Your task to perform on an android device: turn on notifications settings in the gmail app Image 0: 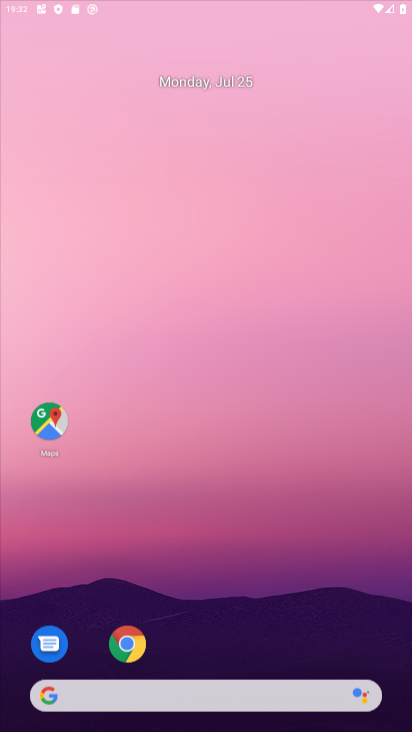
Step 0: press home button
Your task to perform on an android device: turn on notifications settings in the gmail app Image 1: 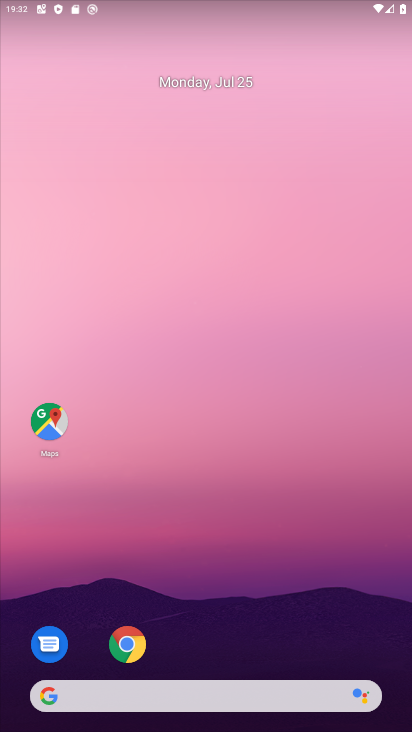
Step 1: drag from (206, 663) to (262, 28)
Your task to perform on an android device: turn on notifications settings in the gmail app Image 2: 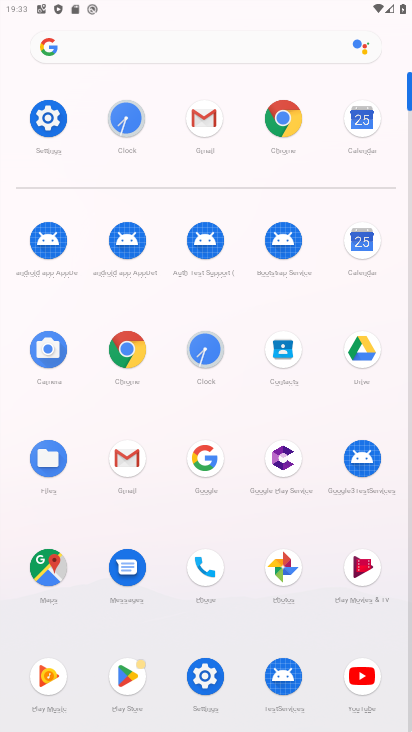
Step 2: click (208, 112)
Your task to perform on an android device: turn on notifications settings in the gmail app Image 3: 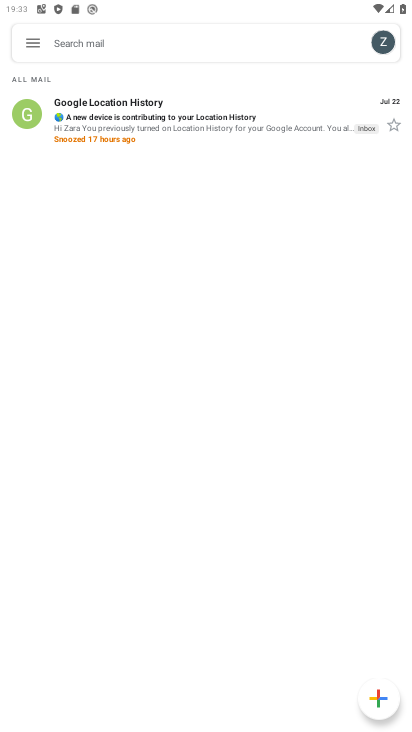
Step 3: click (21, 41)
Your task to perform on an android device: turn on notifications settings in the gmail app Image 4: 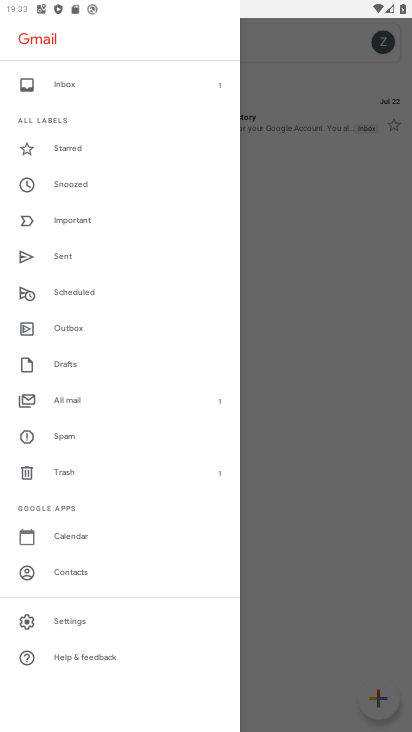
Step 4: click (96, 618)
Your task to perform on an android device: turn on notifications settings in the gmail app Image 5: 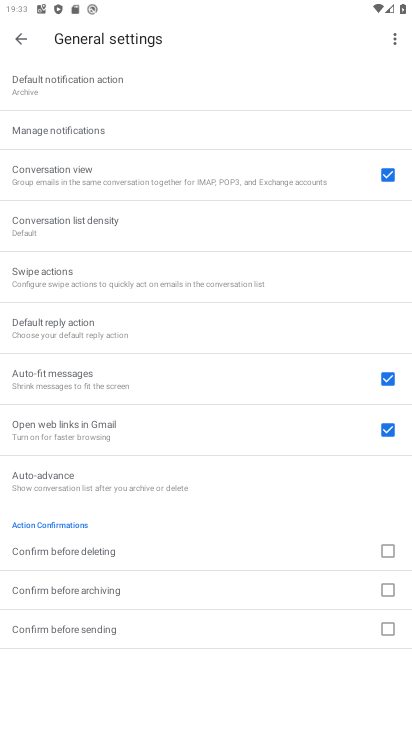
Step 5: click (113, 128)
Your task to perform on an android device: turn on notifications settings in the gmail app Image 6: 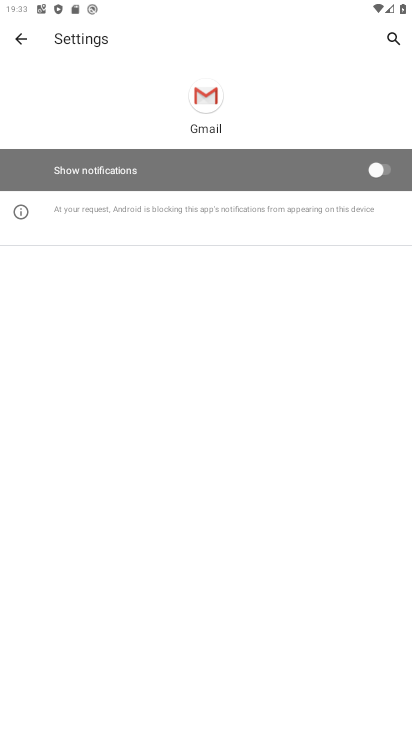
Step 6: click (379, 157)
Your task to perform on an android device: turn on notifications settings in the gmail app Image 7: 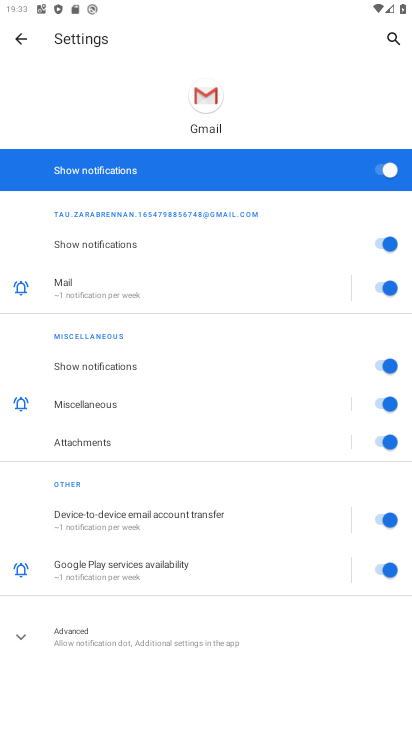
Step 7: task complete